Your task to perform on an android device: Add razer blackwidow to the cart on newegg, then select checkout. Image 0: 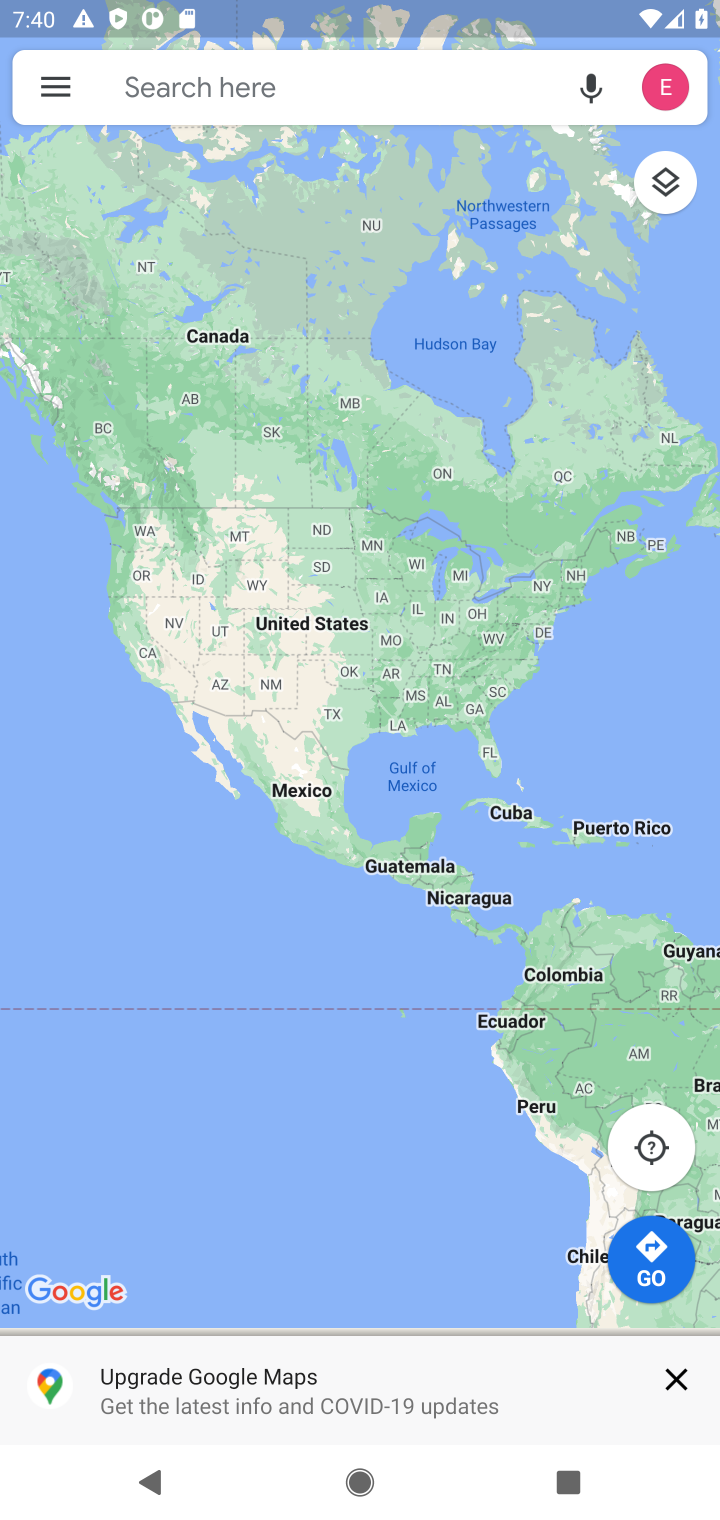
Step 0: press home button
Your task to perform on an android device: Add razer blackwidow to the cart on newegg, then select checkout. Image 1: 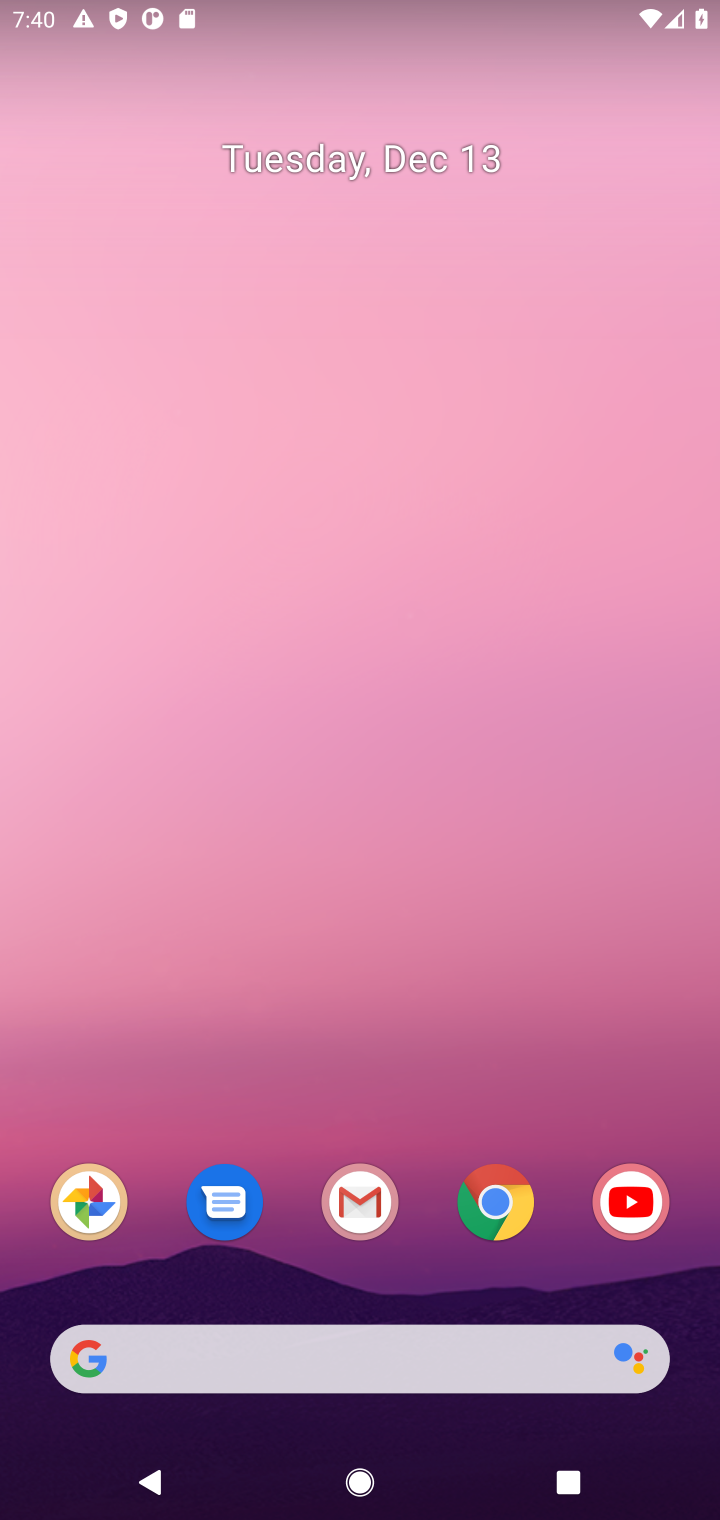
Step 1: click (498, 1226)
Your task to perform on an android device: Add razer blackwidow to the cart on newegg, then select checkout. Image 2: 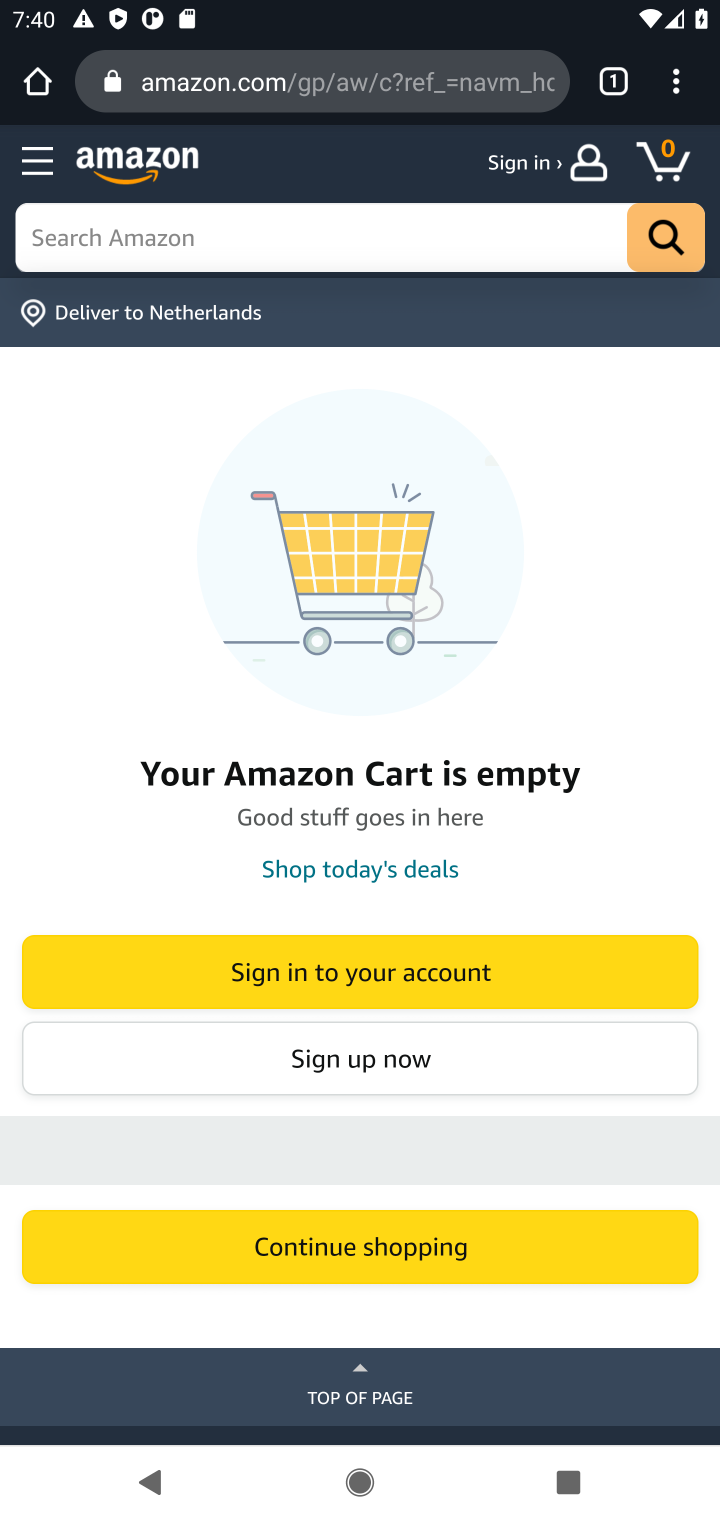
Step 2: click (283, 84)
Your task to perform on an android device: Add razer blackwidow to the cart on newegg, then select checkout. Image 3: 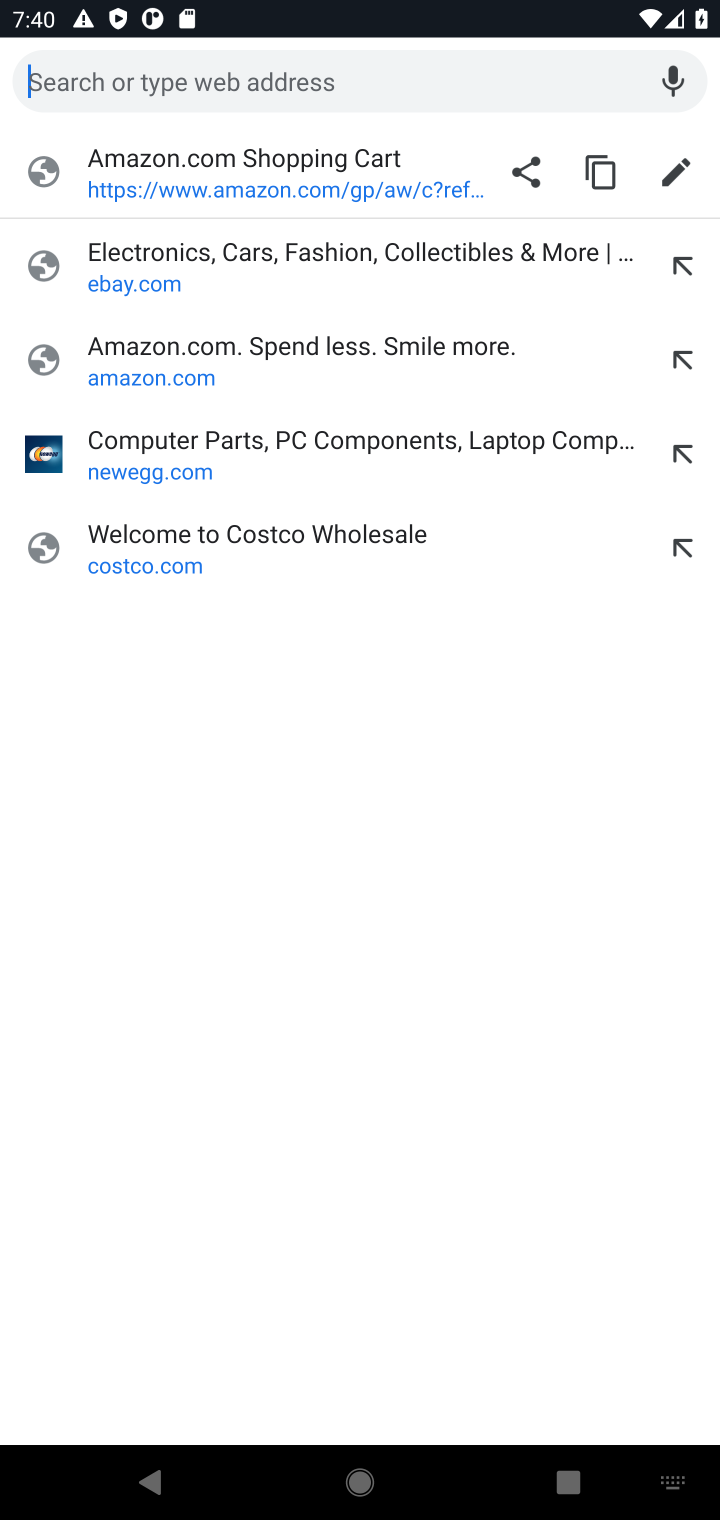
Step 3: click (135, 470)
Your task to perform on an android device: Add razer blackwidow to the cart on newegg, then select checkout. Image 4: 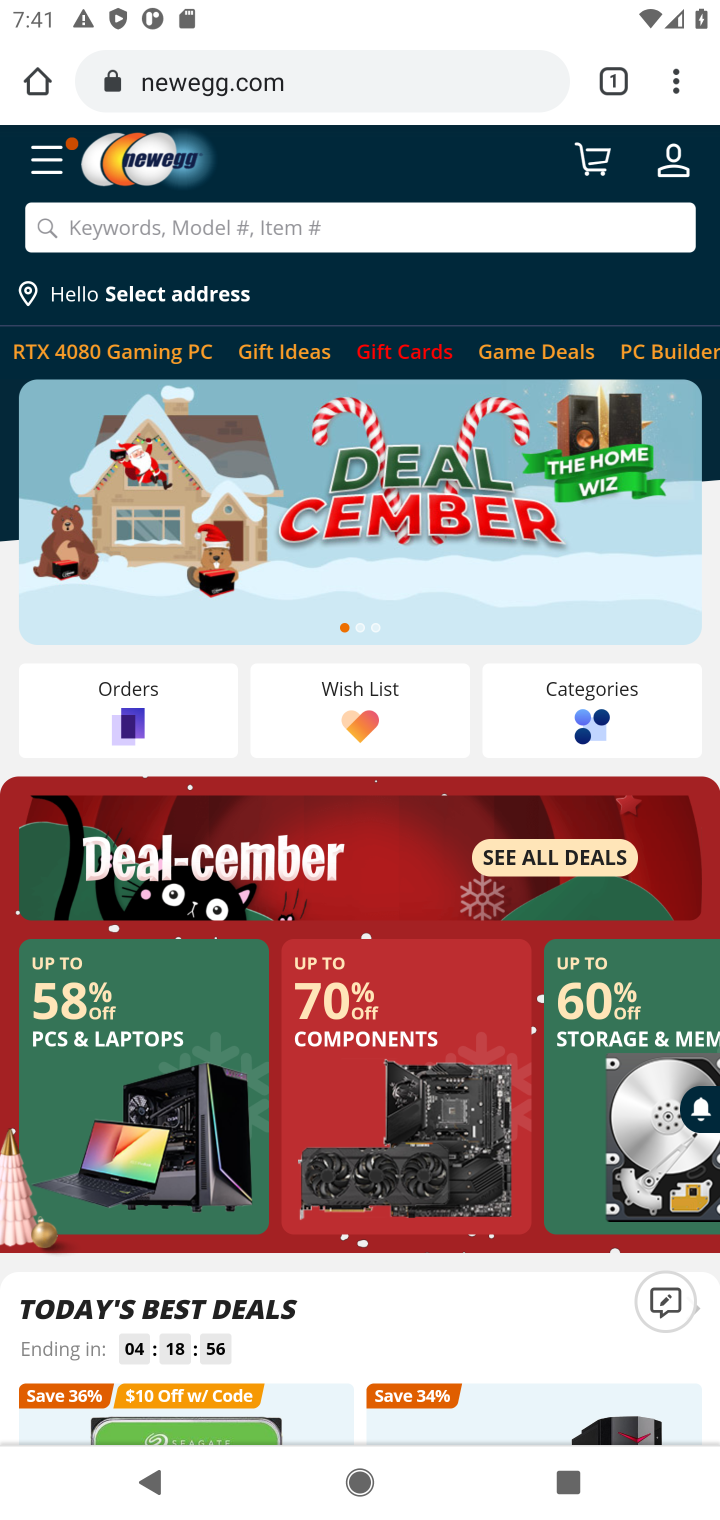
Step 4: click (272, 234)
Your task to perform on an android device: Add razer blackwidow to the cart on newegg, then select checkout. Image 5: 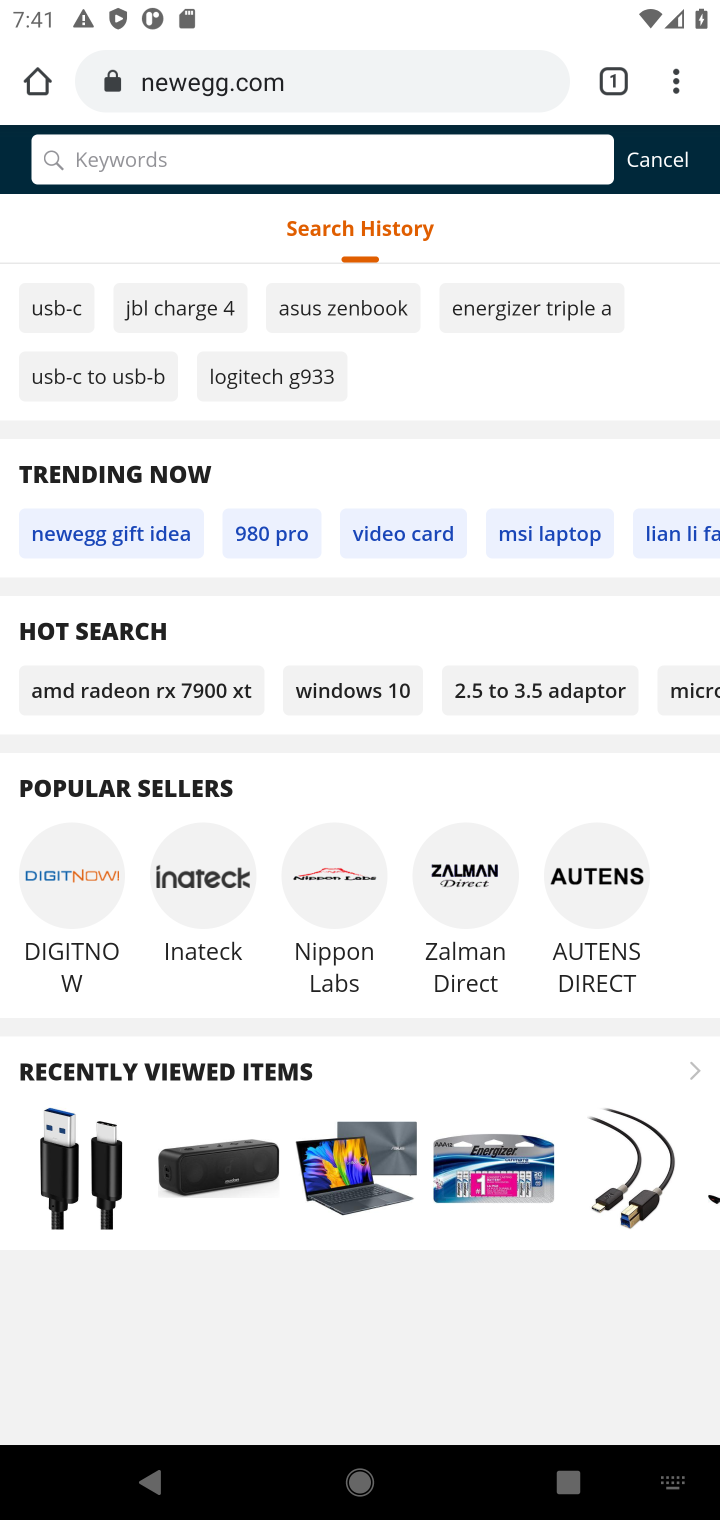
Step 5: type " razer blackwidow"
Your task to perform on an android device: Add razer blackwidow to the cart on newegg, then select checkout. Image 6: 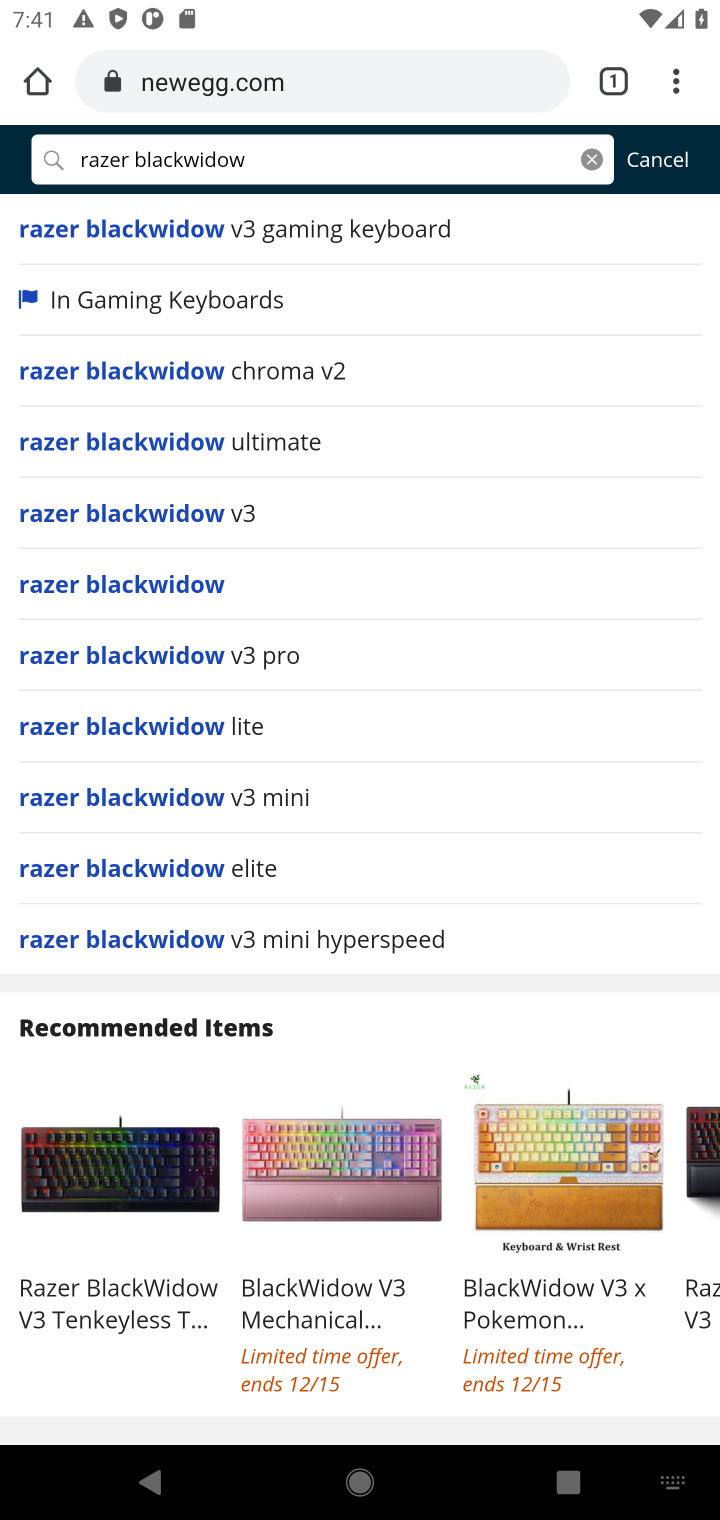
Step 6: click (119, 592)
Your task to perform on an android device: Add razer blackwidow to the cart on newegg, then select checkout. Image 7: 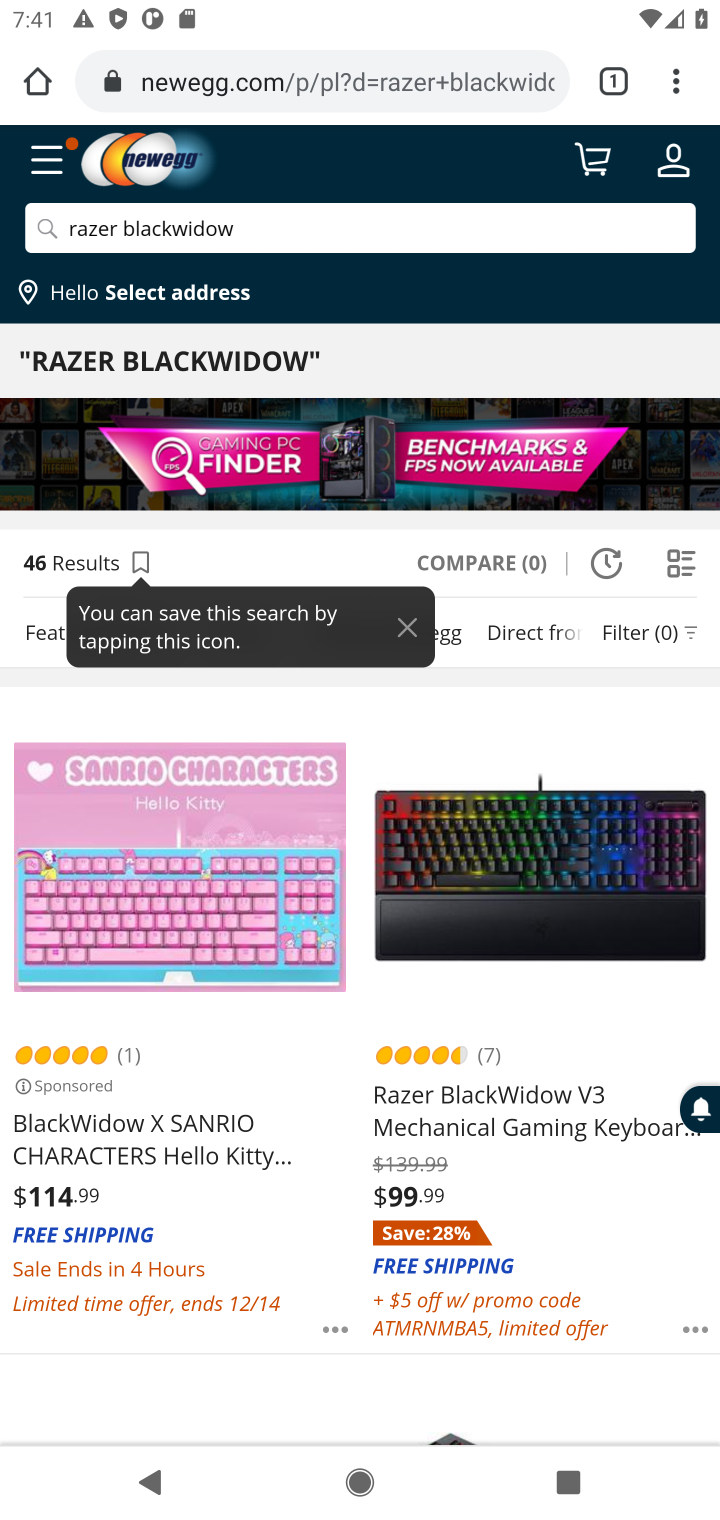
Step 7: click (473, 1103)
Your task to perform on an android device: Add razer blackwidow to the cart on newegg, then select checkout. Image 8: 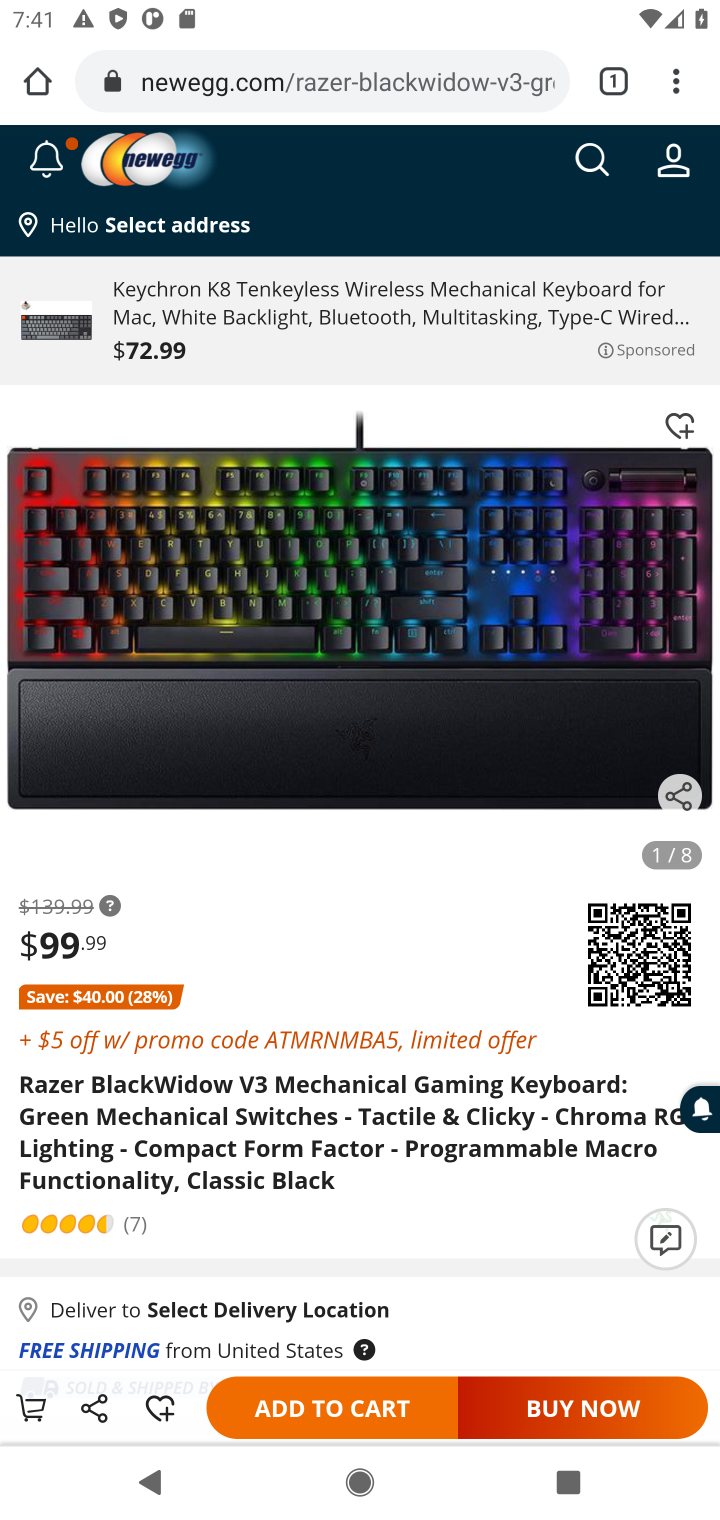
Step 8: click (341, 1402)
Your task to perform on an android device: Add razer blackwidow to the cart on newegg, then select checkout. Image 9: 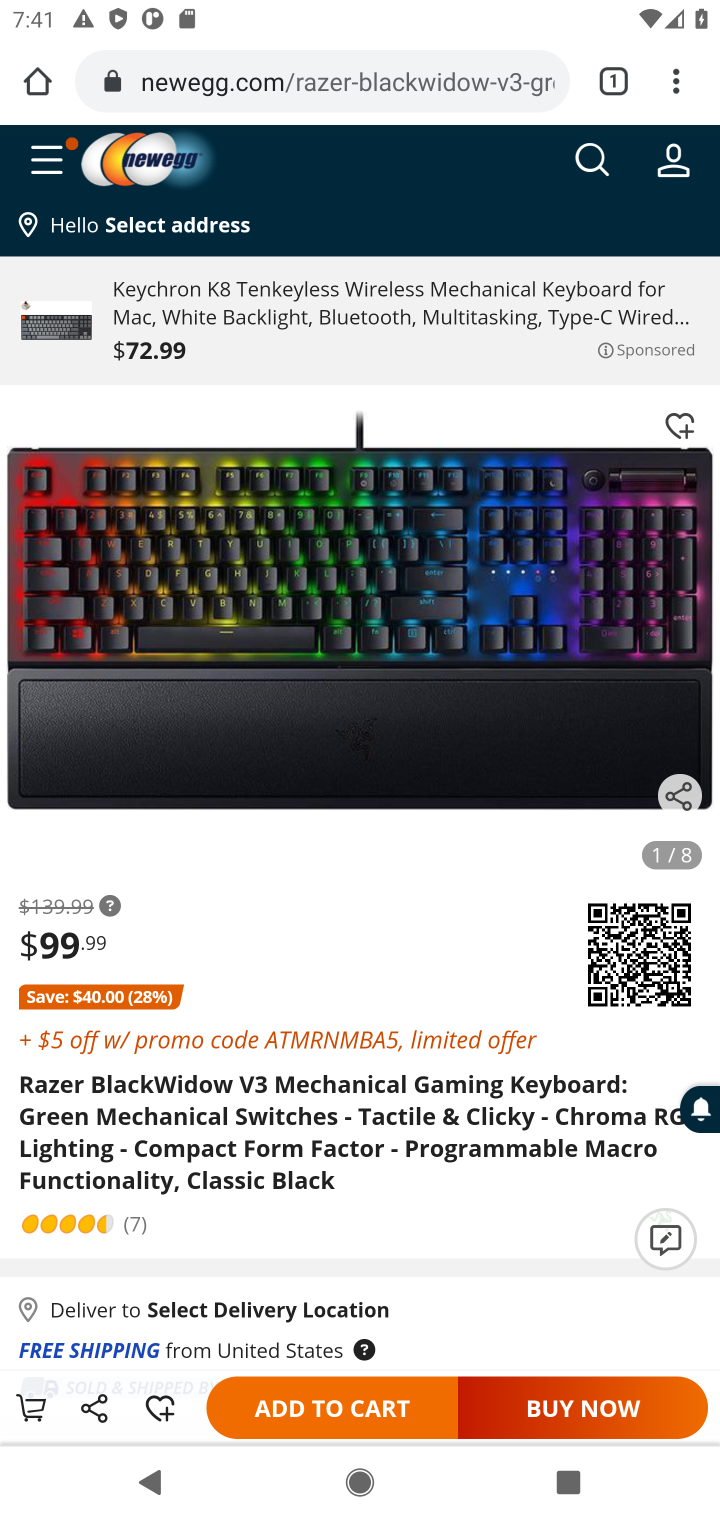
Step 9: click (335, 1409)
Your task to perform on an android device: Add razer blackwidow to the cart on newegg, then select checkout. Image 10: 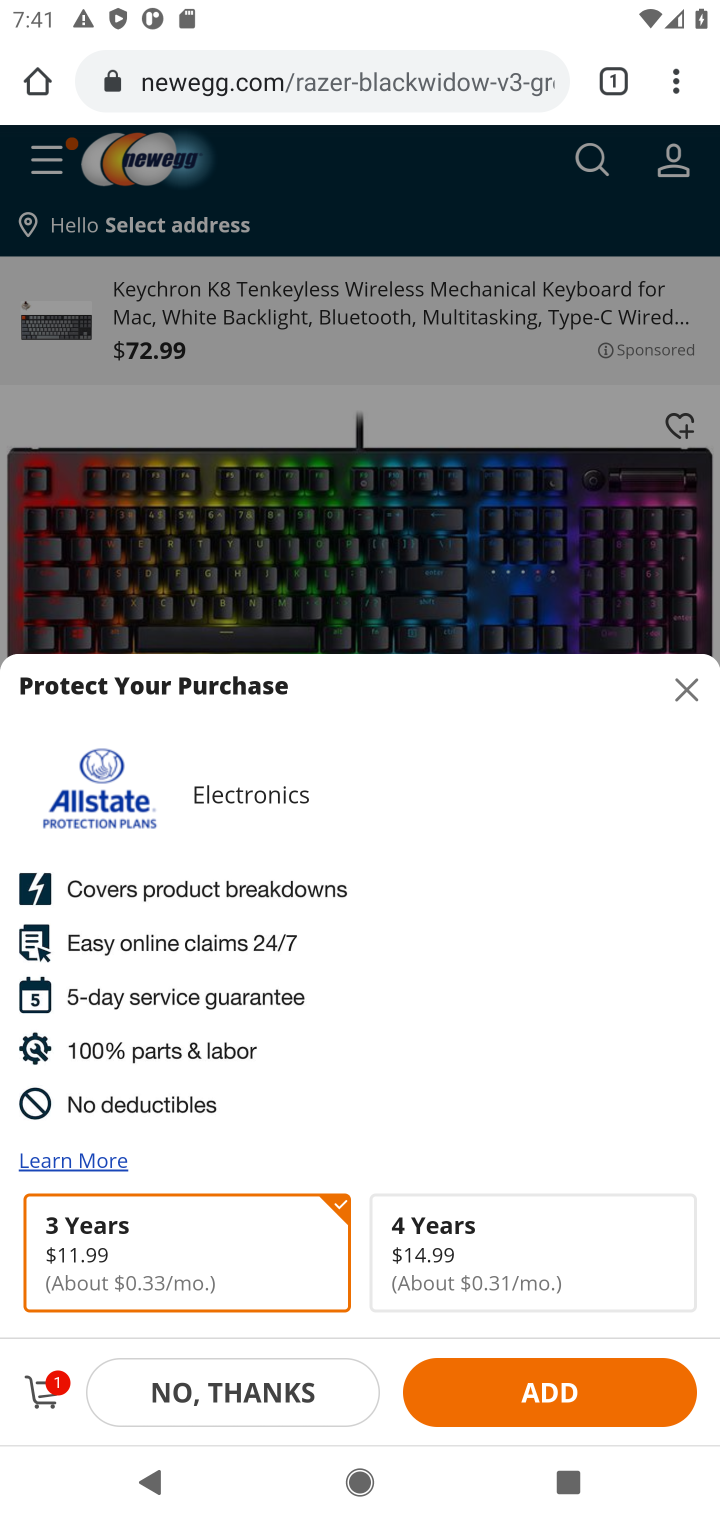
Step 10: click (46, 1395)
Your task to perform on an android device: Add razer blackwidow to the cart on newegg, then select checkout. Image 11: 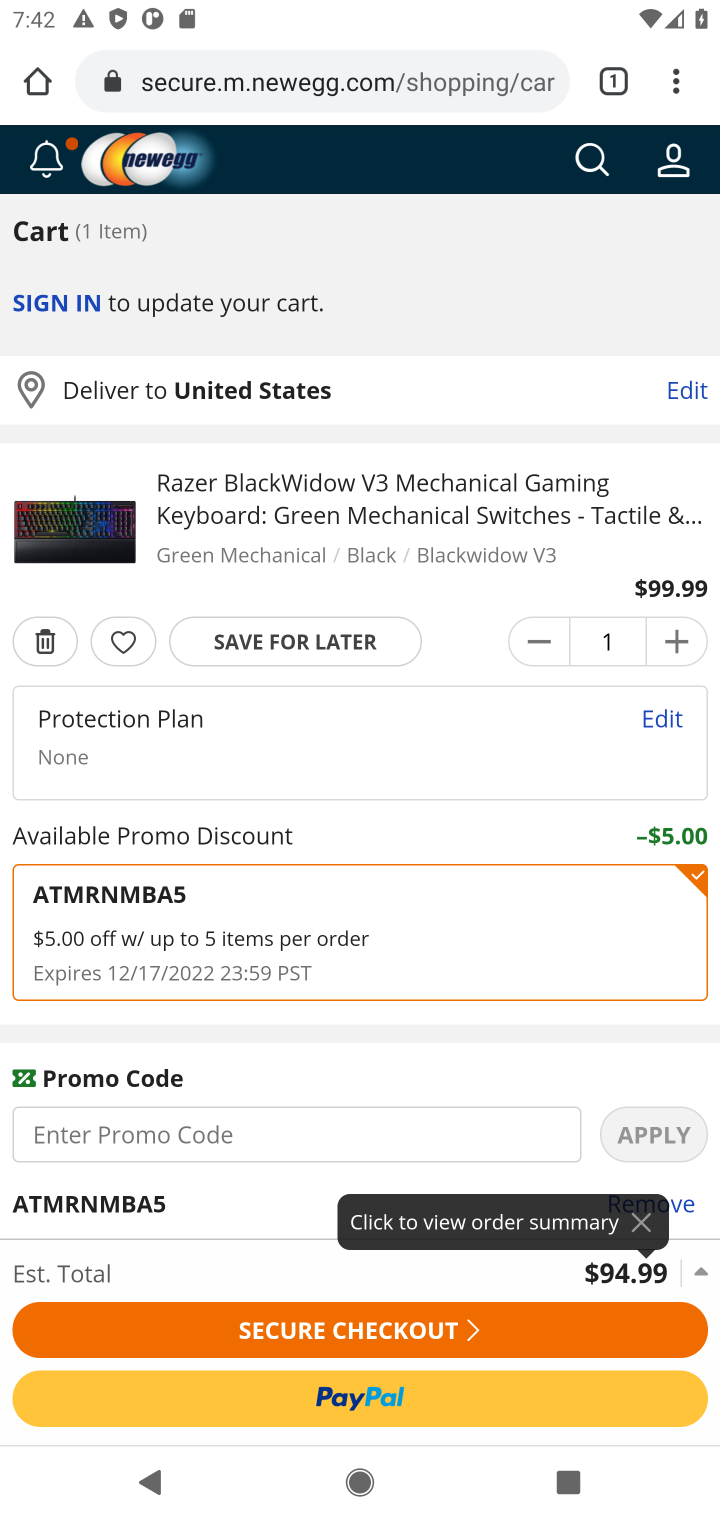
Step 11: click (228, 1337)
Your task to perform on an android device: Add razer blackwidow to the cart on newegg, then select checkout. Image 12: 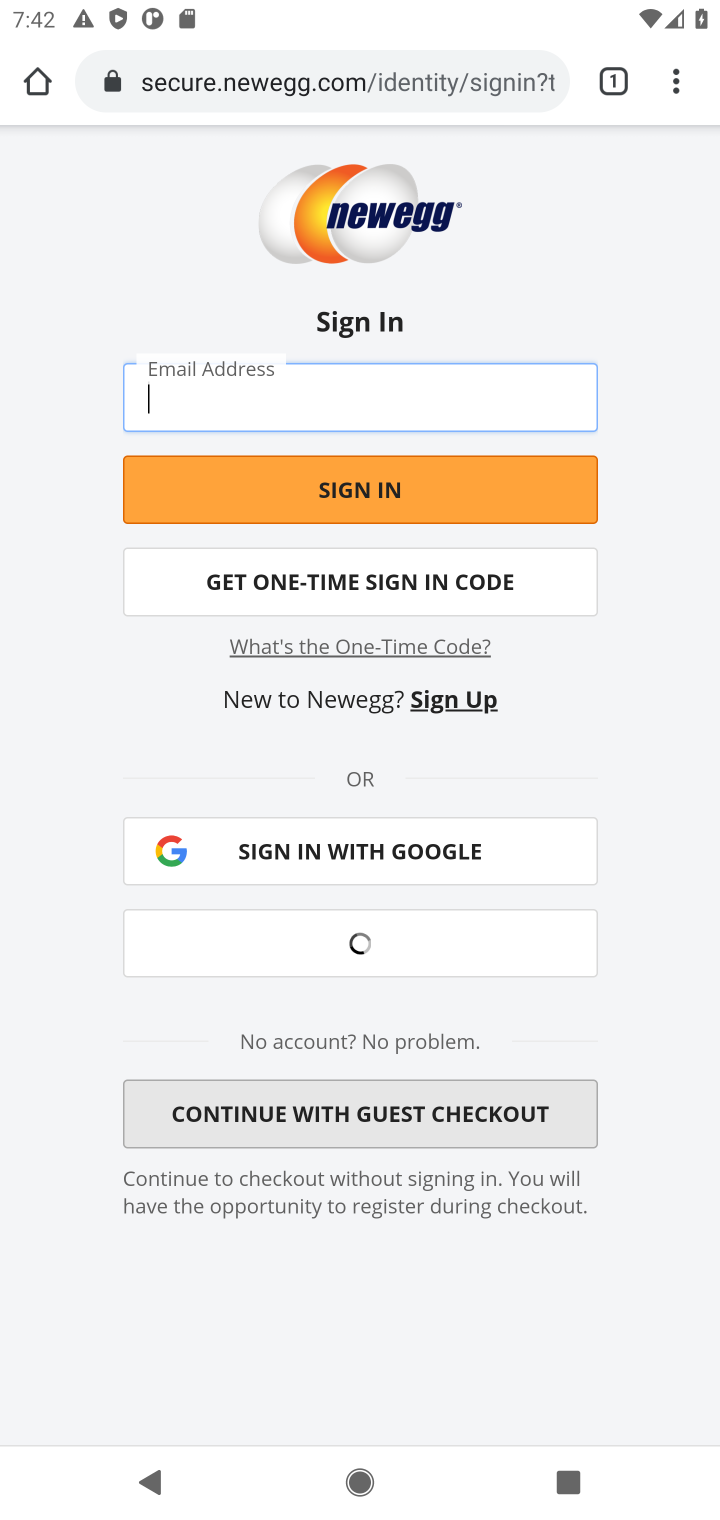
Step 12: task complete